Your task to perform on an android device: Open the Play Movies app and select the watchlist tab. Image 0: 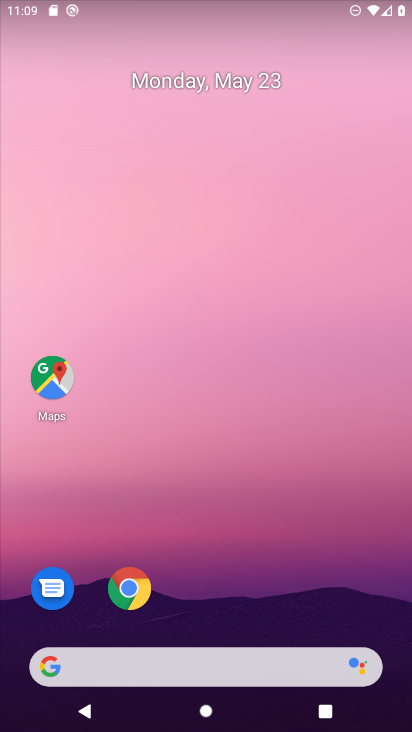
Step 0: drag from (289, 567) to (279, 224)
Your task to perform on an android device: Open the Play Movies app and select the watchlist tab. Image 1: 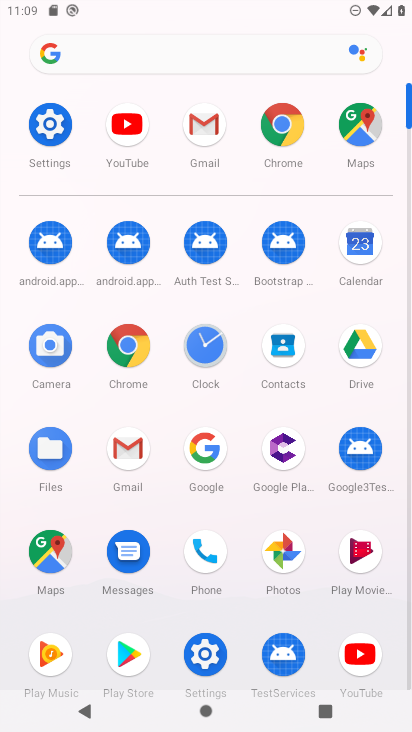
Step 1: click (376, 548)
Your task to perform on an android device: Open the Play Movies app and select the watchlist tab. Image 2: 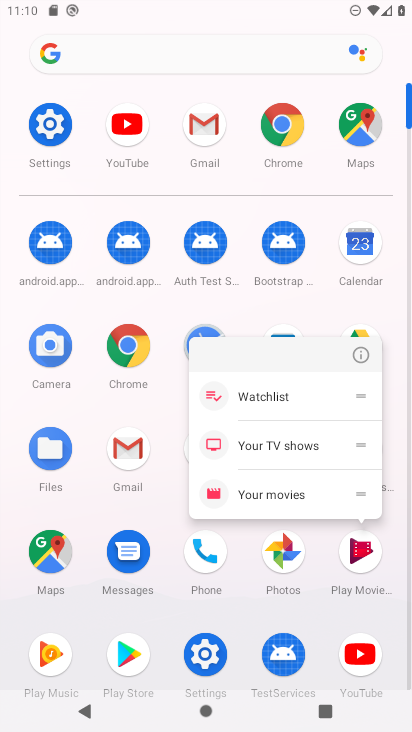
Step 2: click (363, 550)
Your task to perform on an android device: Open the Play Movies app and select the watchlist tab. Image 3: 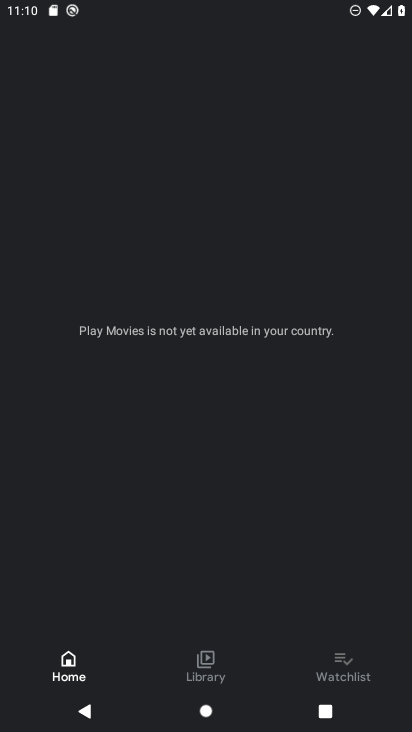
Step 3: click (323, 657)
Your task to perform on an android device: Open the Play Movies app and select the watchlist tab. Image 4: 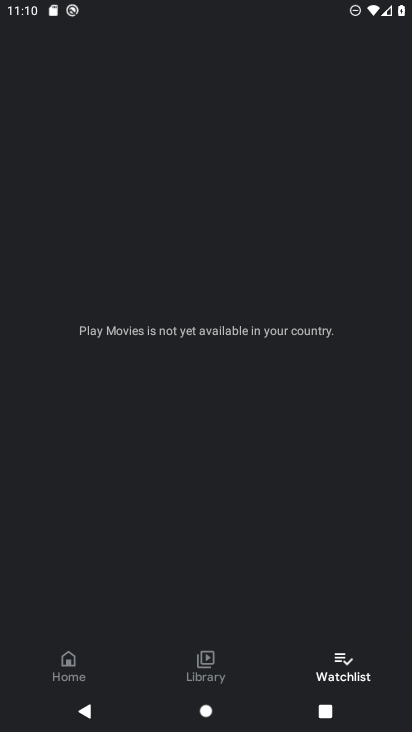
Step 4: task complete